Your task to perform on an android device: Show me popular videos on Youtube Image 0: 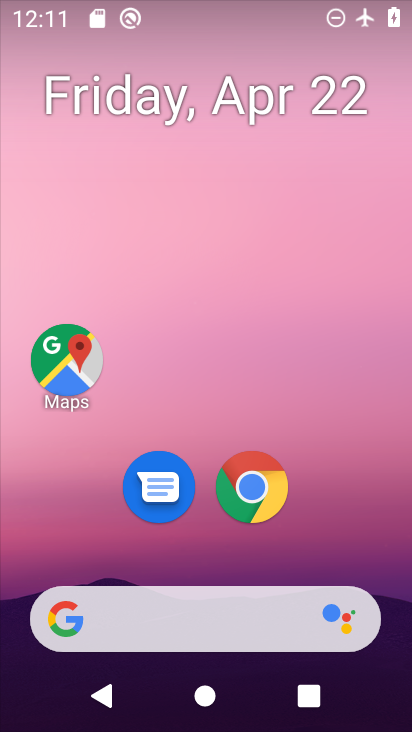
Step 0: drag from (337, 479) to (358, 208)
Your task to perform on an android device: Show me popular videos on Youtube Image 1: 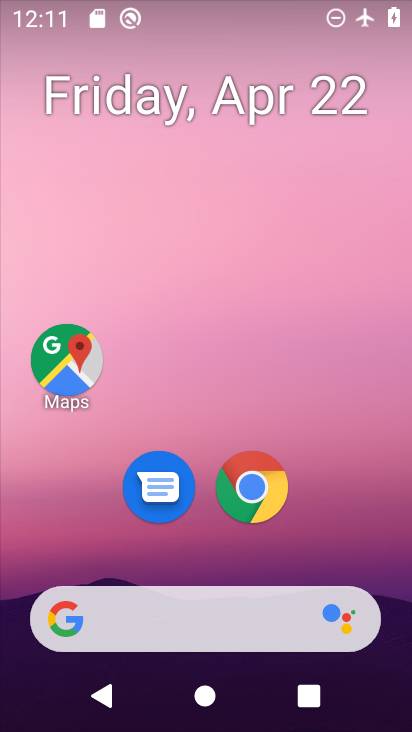
Step 1: drag from (330, 556) to (365, 184)
Your task to perform on an android device: Show me popular videos on Youtube Image 2: 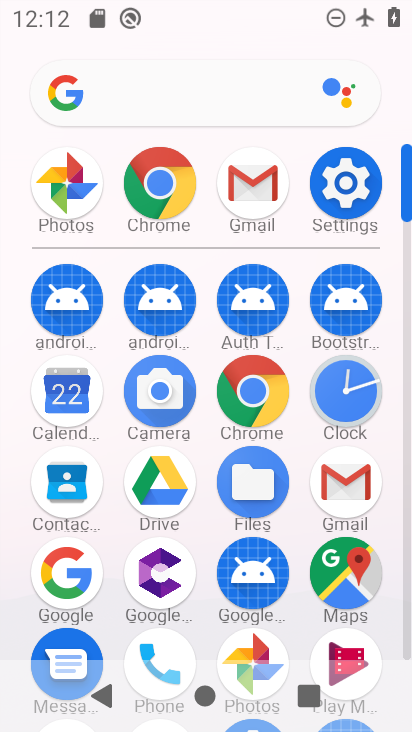
Step 2: drag from (296, 624) to (308, 288)
Your task to perform on an android device: Show me popular videos on Youtube Image 3: 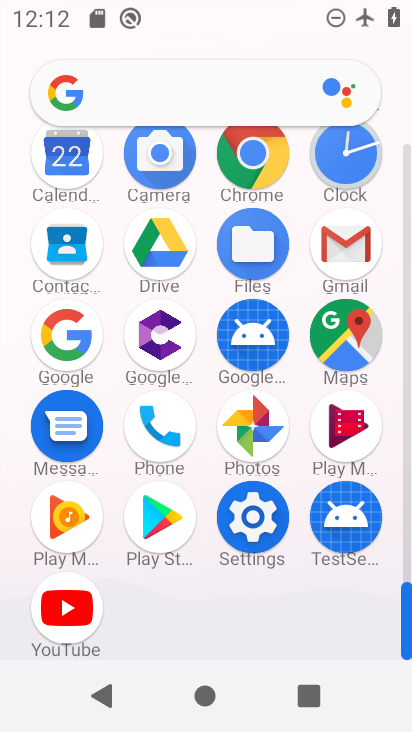
Step 3: click (77, 605)
Your task to perform on an android device: Show me popular videos on Youtube Image 4: 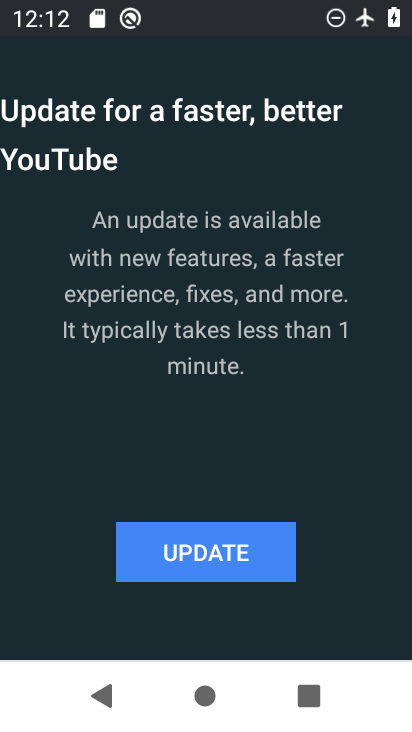
Step 4: task complete